Your task to perform on an android device: Play the last video I watched on Youtube Image 0: 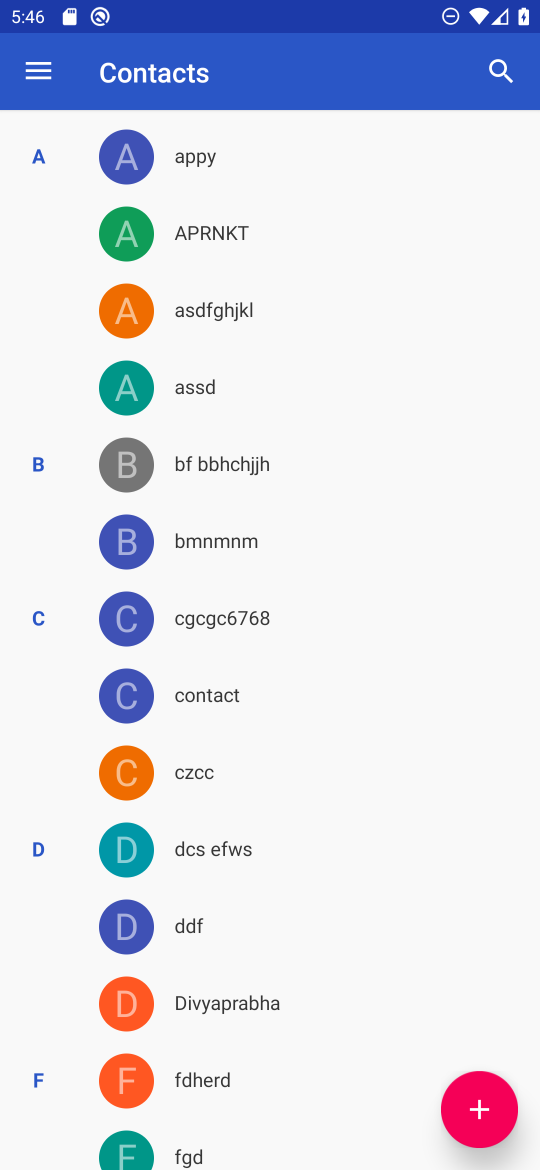
Step 0: press home button
Your task to perform on an android device: Play the last video I watched on Youtube Image 1: 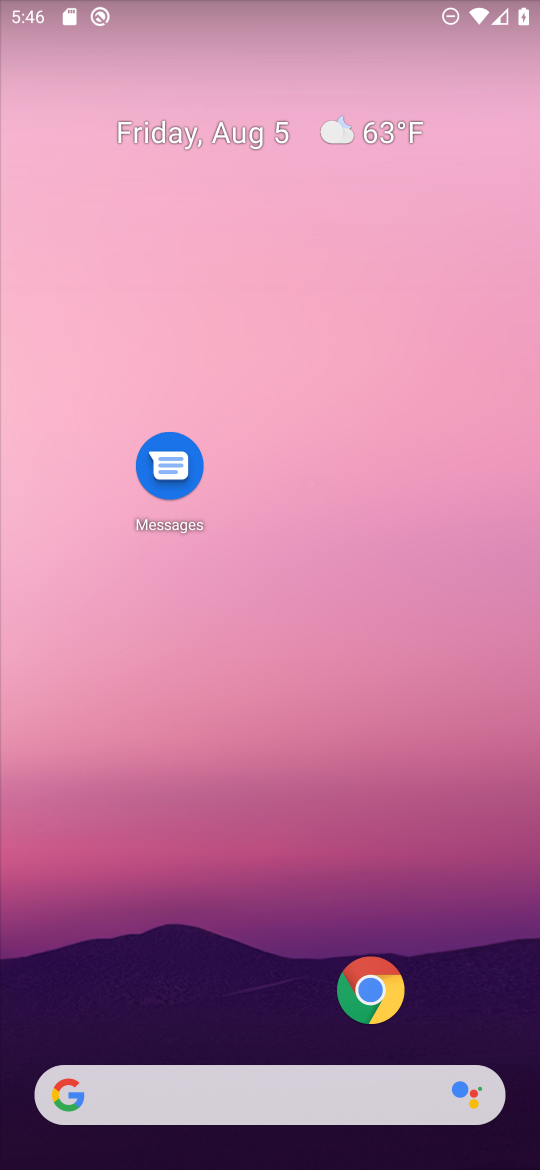
Step 1: drag from (274, 1072) to (203, 324)
Your task to perform on an android device: Play the last video I watched on Youtube Image 2: 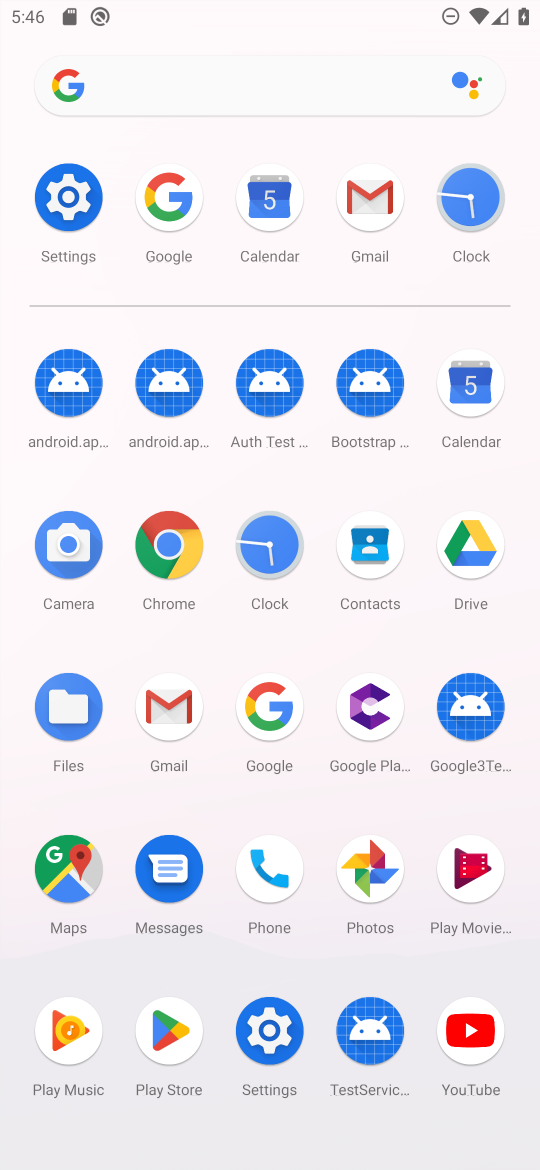
Step 2: click (472, 1050)
Your task to perform on an android device: Play the last video I watched on Youtube Image 3: 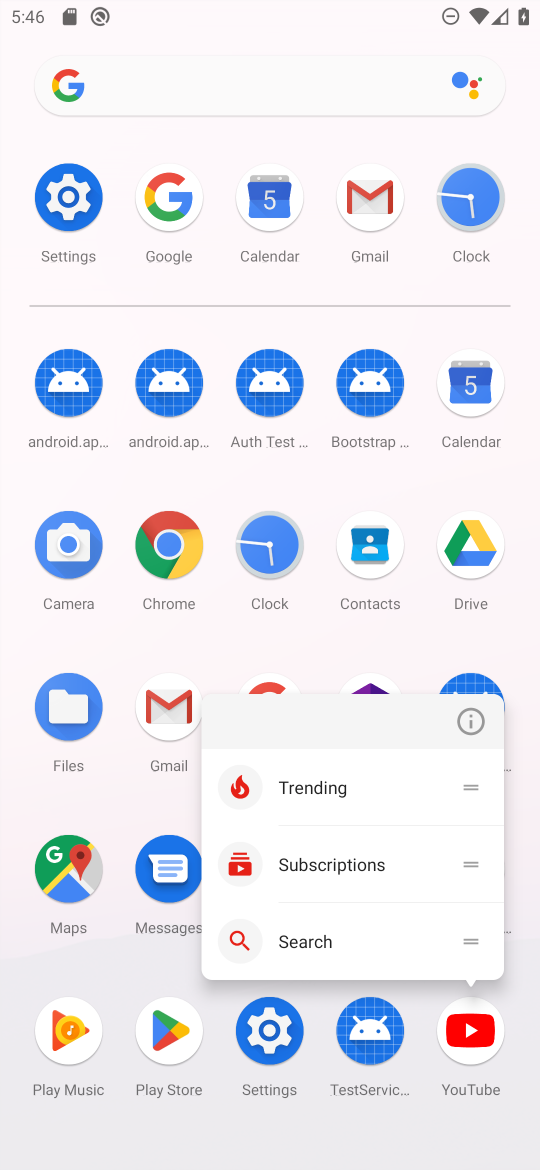
Step 3: click (472, 1042)
Your task to perform on an android device: Play the last video I watched on Youtube Image 4: 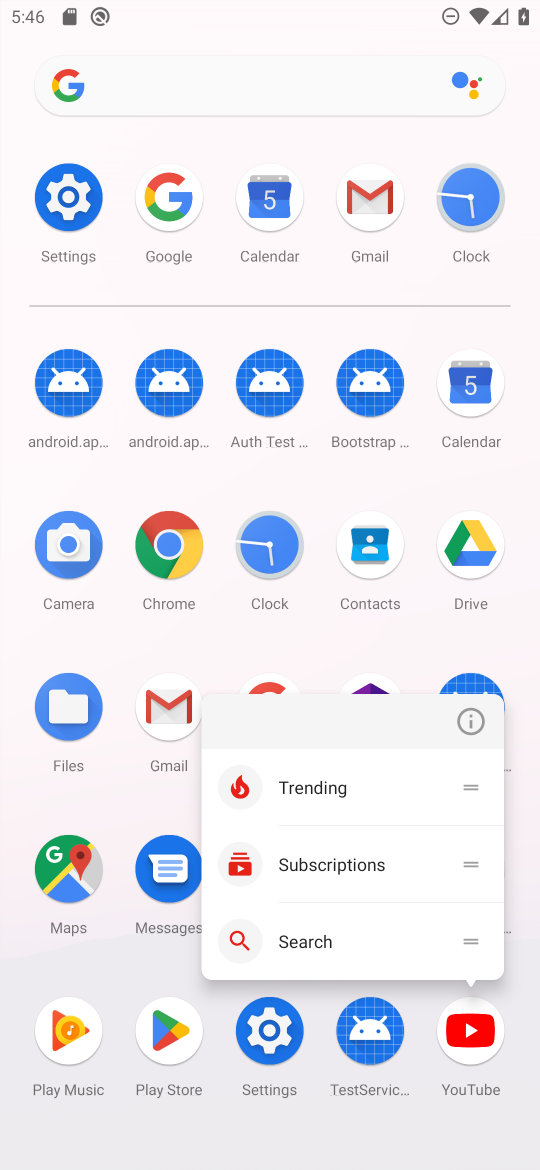
Step 4: click (468, 1019)
Your task to perform on an android device: Play the last video I watched on Youtube Image 5: 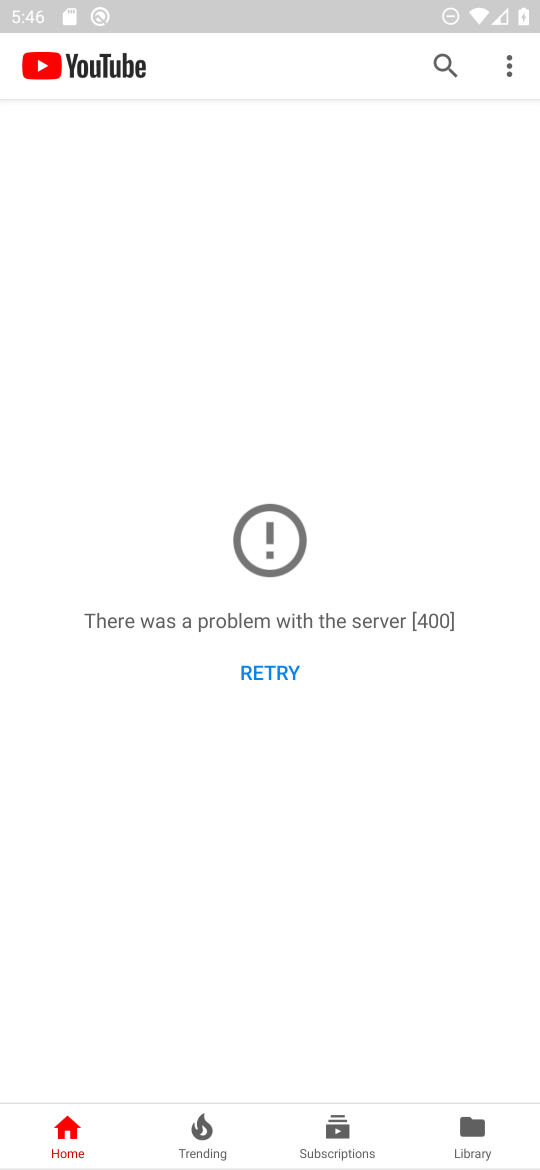
Step 5: click (479, 1121)
Your task to perform on an android device: Play the last video I watched on Youtube Image 6: 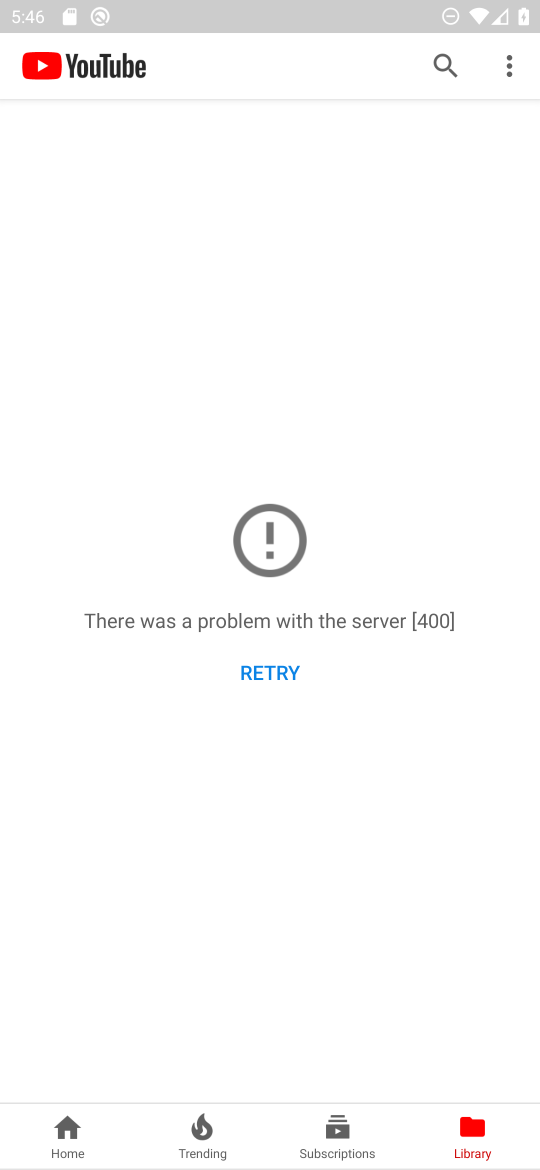
Step 6: task complete